Your task to perform on an android device: Go to sound settings Image 0: 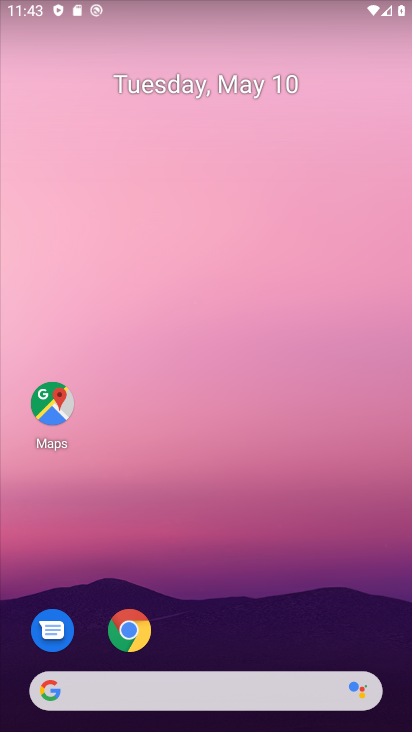
Step 0: drag from (216, 666) to (133, 8)
Your task to perform on an android device: Go to sound settings Image 1: 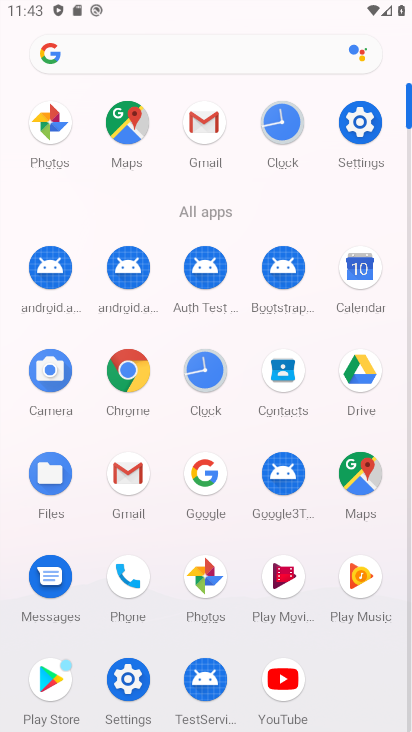
Step 1: click (356, 124)
Your task to perform on an android device: Go to sound settings Image 2: 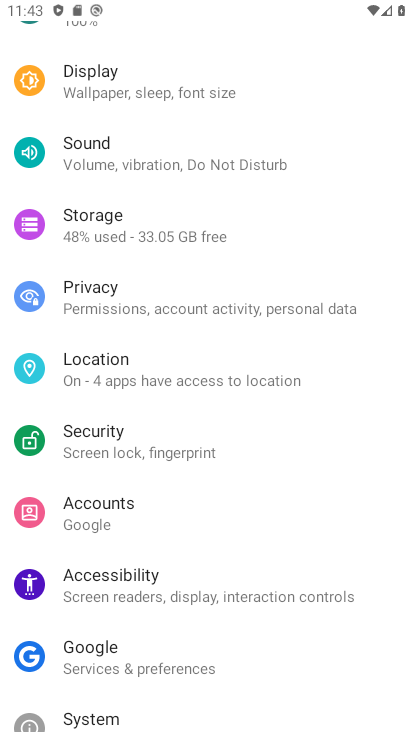
Step 2: click (81, 165)
Your task to perform on an android device: Go to sound settings Image 3: 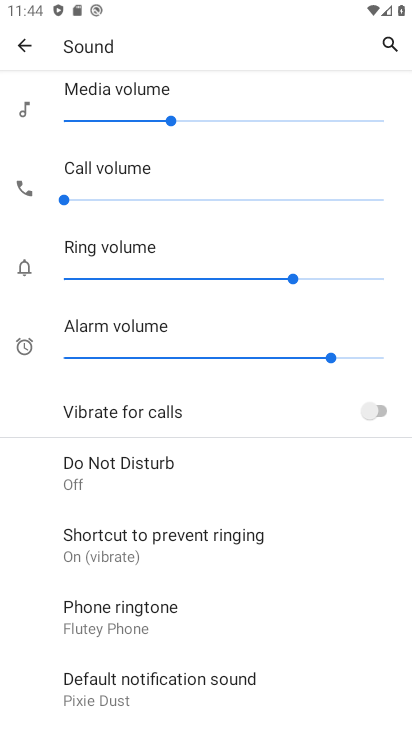
Step 3: task complete